Your task to perform on an android device: Empty the shopping cart on costco.com. Search for "razer kraken" on costco.com, select the first entry, add it to the cart, then select checkout. Image 0: 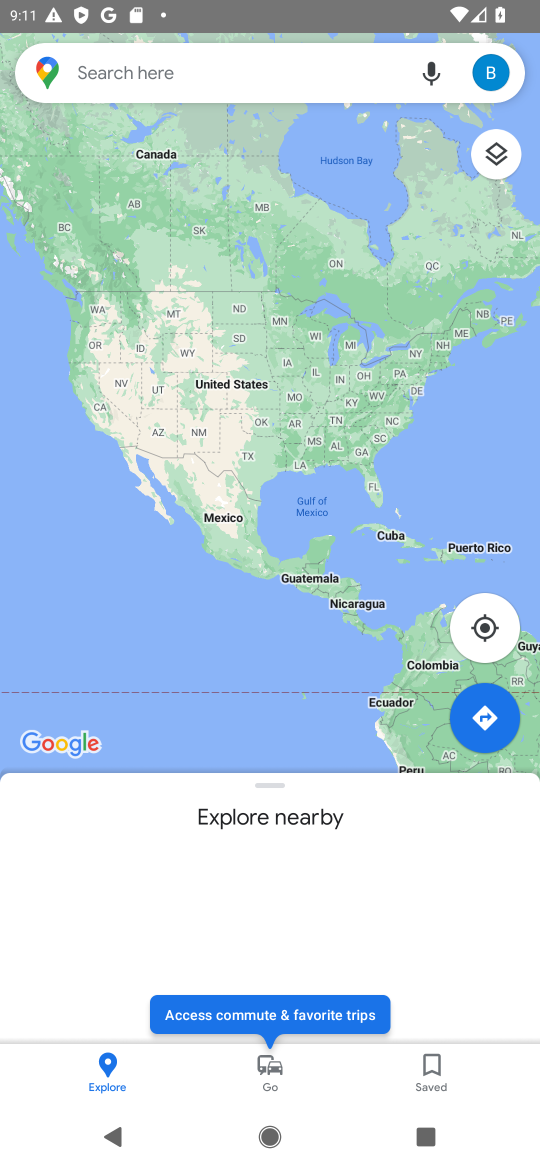
Step 0: press home button
Your task to perform on an android device: Empty the shopping cart on costco.com. Search for "razer kraken" on costco.com, select the first entry, add it to the cart, then select checkout. Image 1: 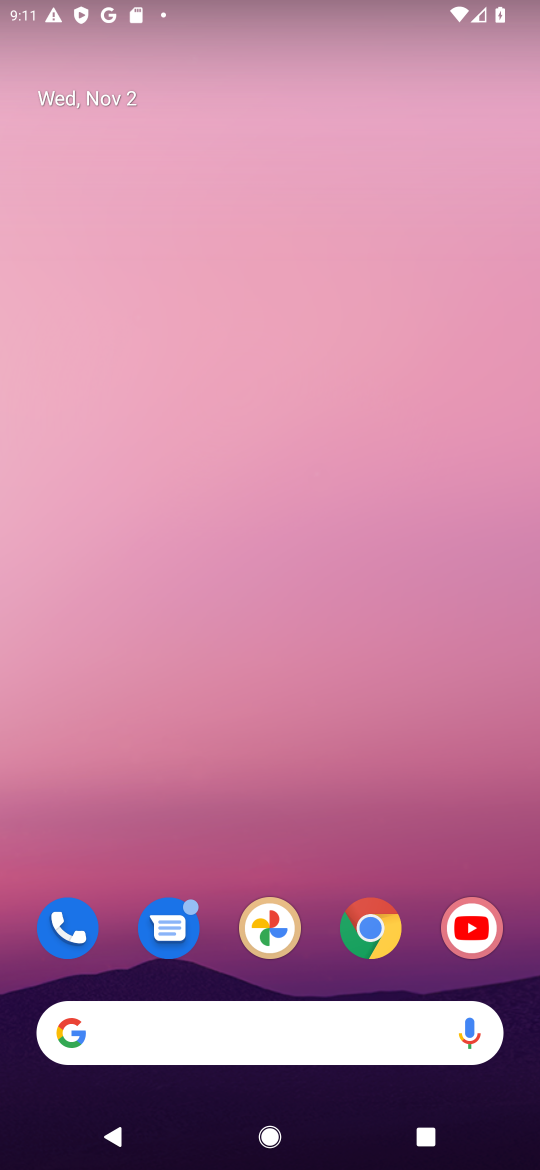
Step 1: click (356, 929)
Your task to perform on an android device: Empty the shopping cart on costco.com. Search for "razer kraken" on costco.com, select the first entry, add it to the cart, then select checkout. Image 2: 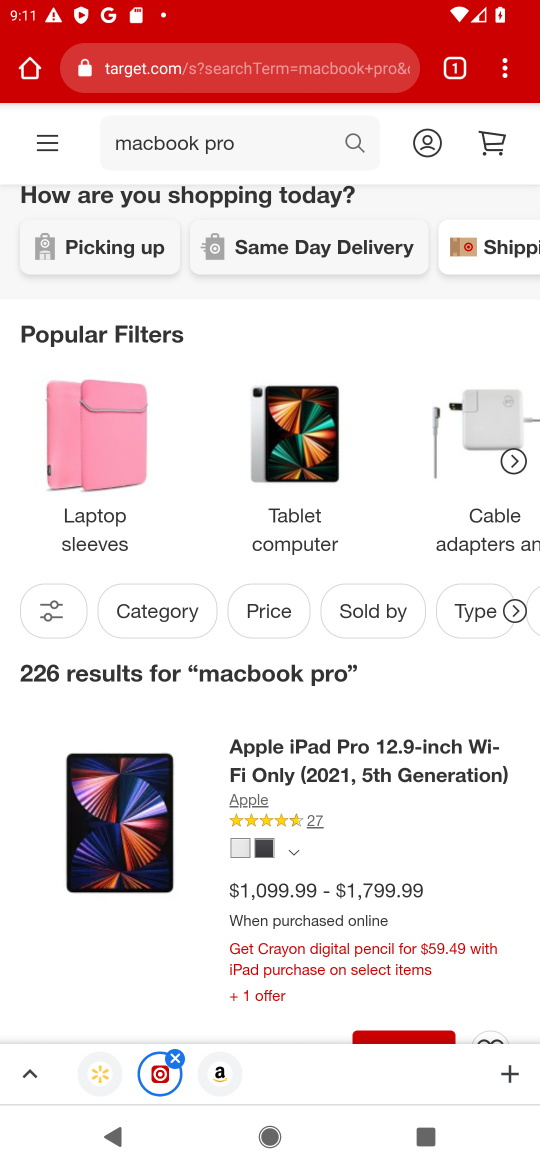
Step 2: click (242, 96)
Your task to perform on an android device: Empty the shopping cart on costco.com. Search for "razer kraken" on costco.com, select the first entry, add it to the cart, then select checkout. Image 3: 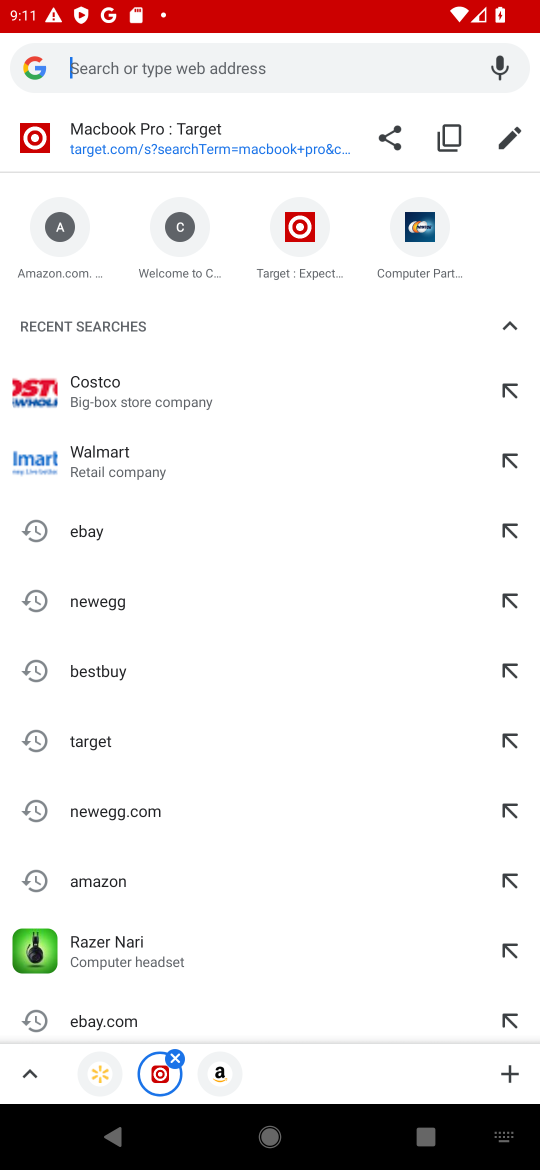
Step 3: type "costco.com"
Your task to perform on an android device: Empty the shopping cart on costco.com. Search for "razer kraken" on costco.com, select the first entry, add it to the cart, then select checkout. Image 4: 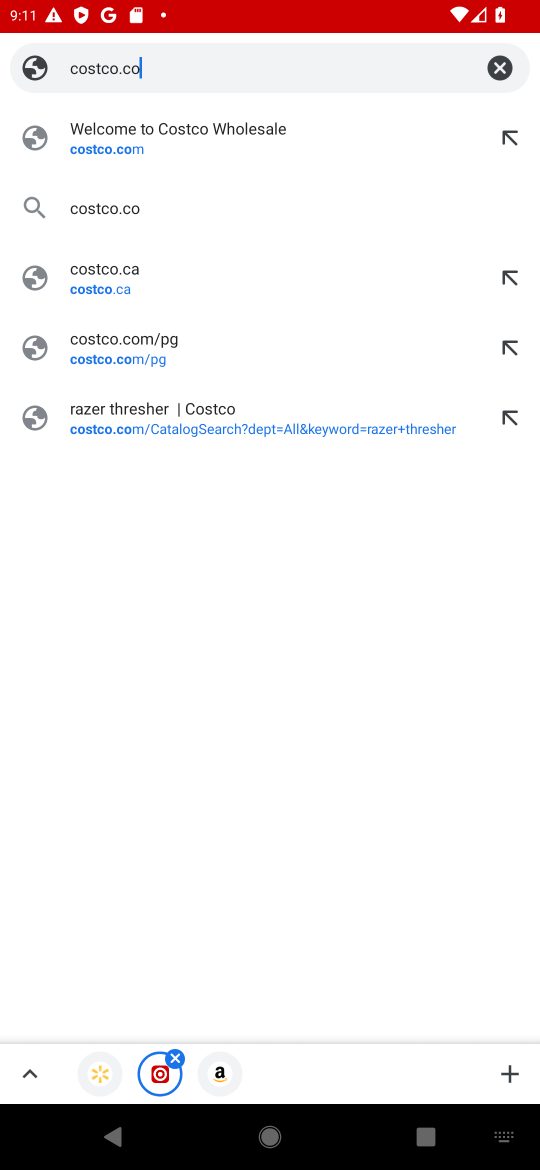
Step 4: type ""
Your task to perform on an android device: Empty the shopping cart on costco.com. Search for "razer kraken" on costco.com, select the first entry, add it to the cart, then select checkout. Image 5: 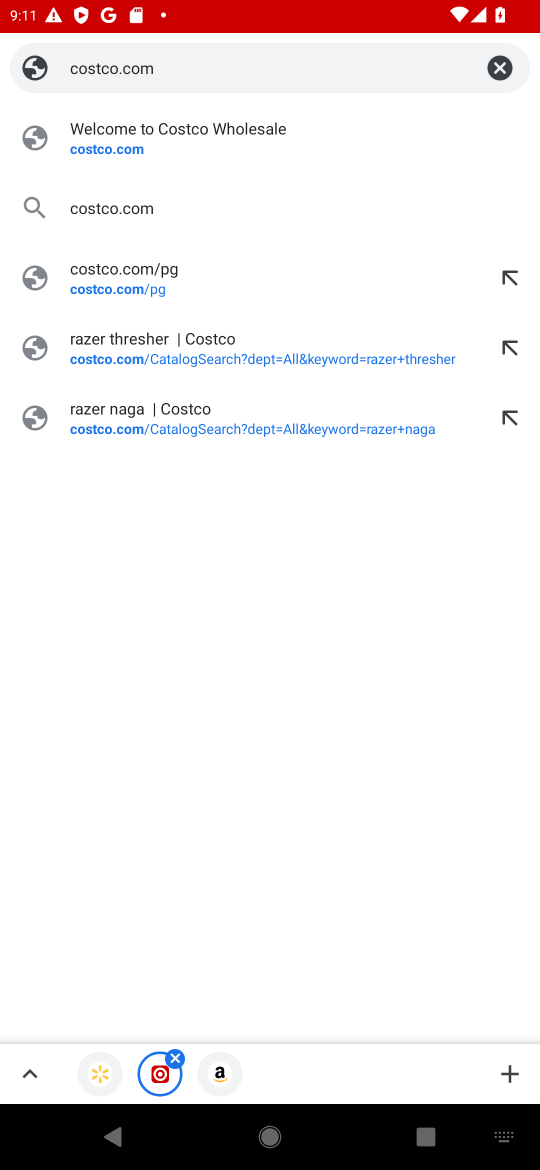
Step 5: click (159, 117)
Your task to perform on an android device: Empty the shopping cart on costco.com. Search for "razer kraken" on costco.com, select the first entry, add it to the cart, then select checkout. Image 6: 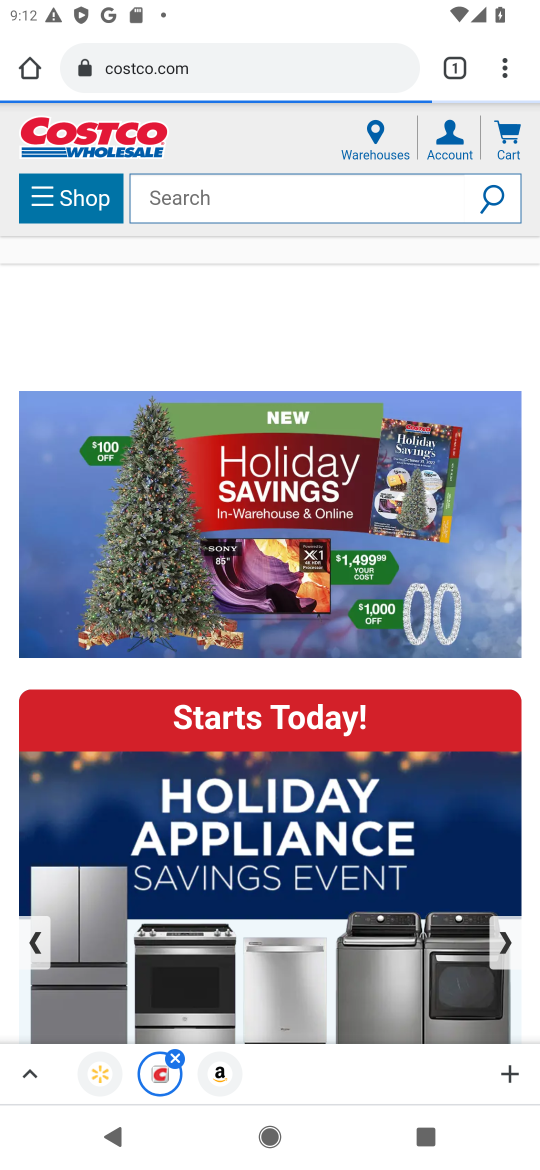
Step 6: click (505, 150)
Your task to perform on an android device: Empty the shopping cart on costco.com. Search for "razer kraken" on costco.com, select the first entry, add it to the cart, then select checkout. Image 7: 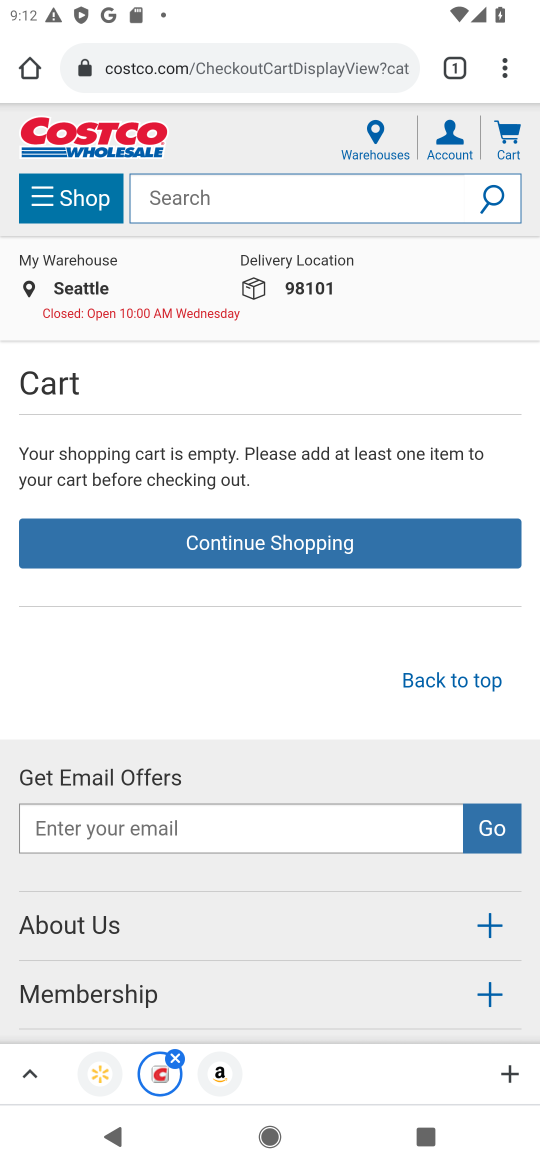
Step 7: click (242, 201)
Your task to perform on an android device: Empty the shopping cart on costco.com. Search for "razer kraken" on costco.com, select the first entry, add it to the cart, then select checkout. Image 8: 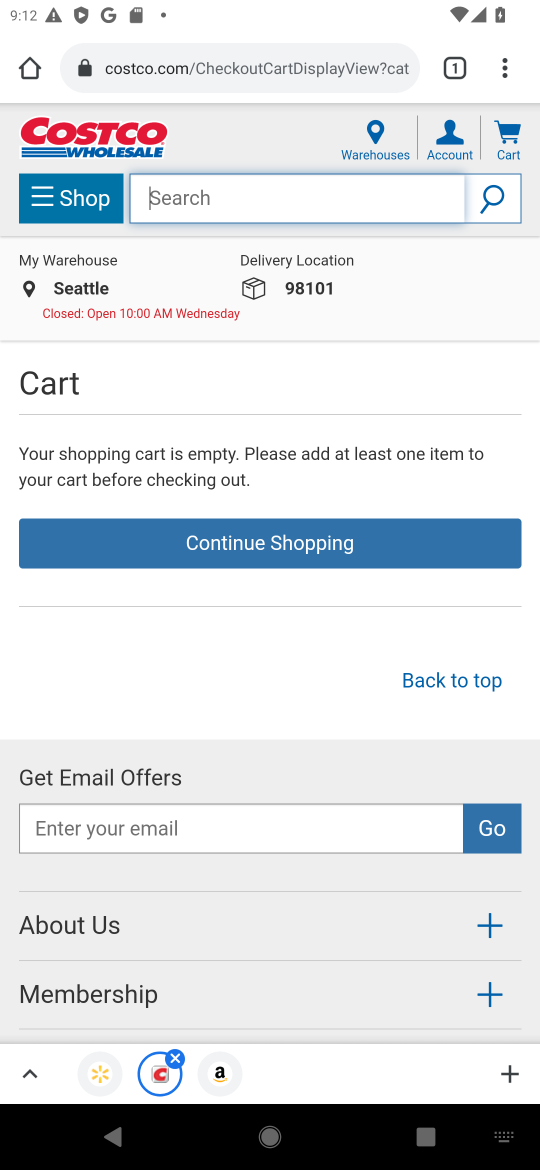
Step 8: type "razer kraken"
Your task to perform on an android device: Empty the shopping cart on costco.com. Search for "razer kraken" on costco.com, select the first entry, add it to the cart, then select checkout. Image 9: 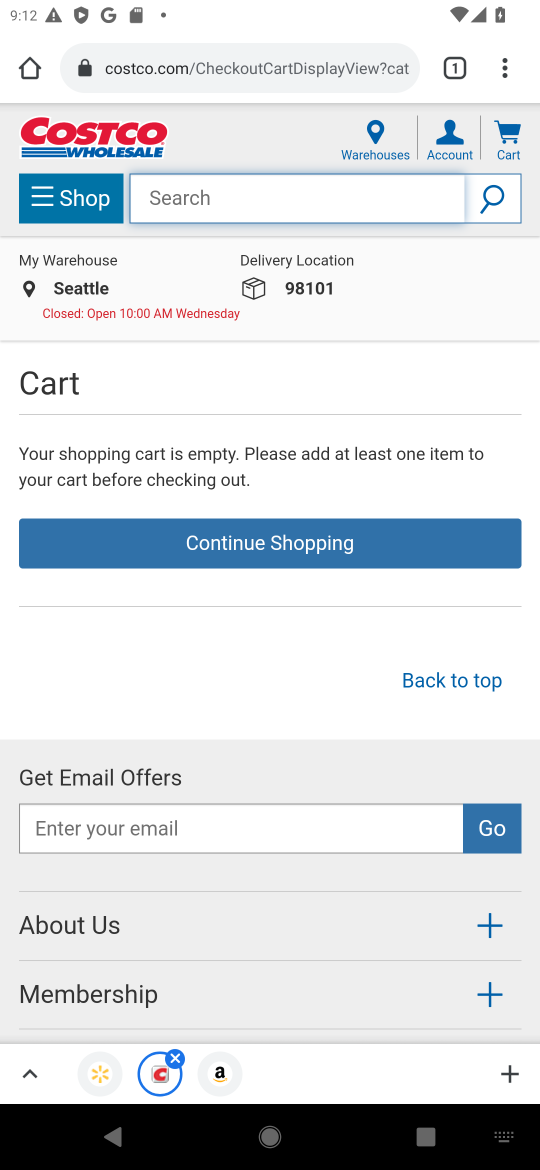
Step 9: type ""
Your task to perform on an android device: Empty the shopping cart on costco.com. Search for "razer kraken" on costco.com, select the first entry, add it to the cart, then select checkout. Image 10: 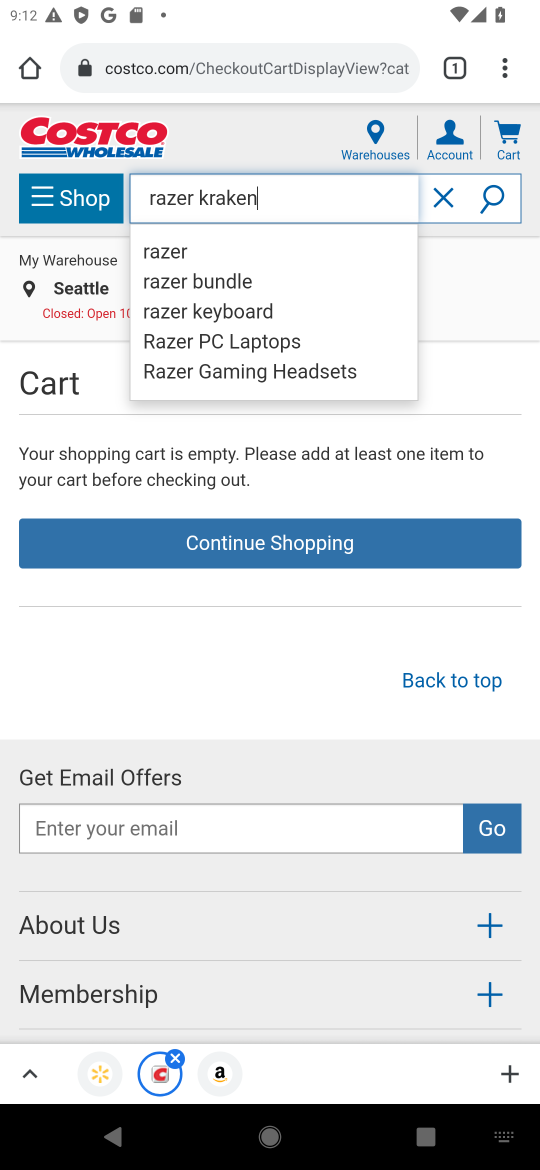
Step 10: click (484, 192)
Your task to perform on an android device: Empty the shopping cart on costco.com. Search for "razer kraken" on costco.com, select the first entry, add it to the cart, then select checkout. Image 11: 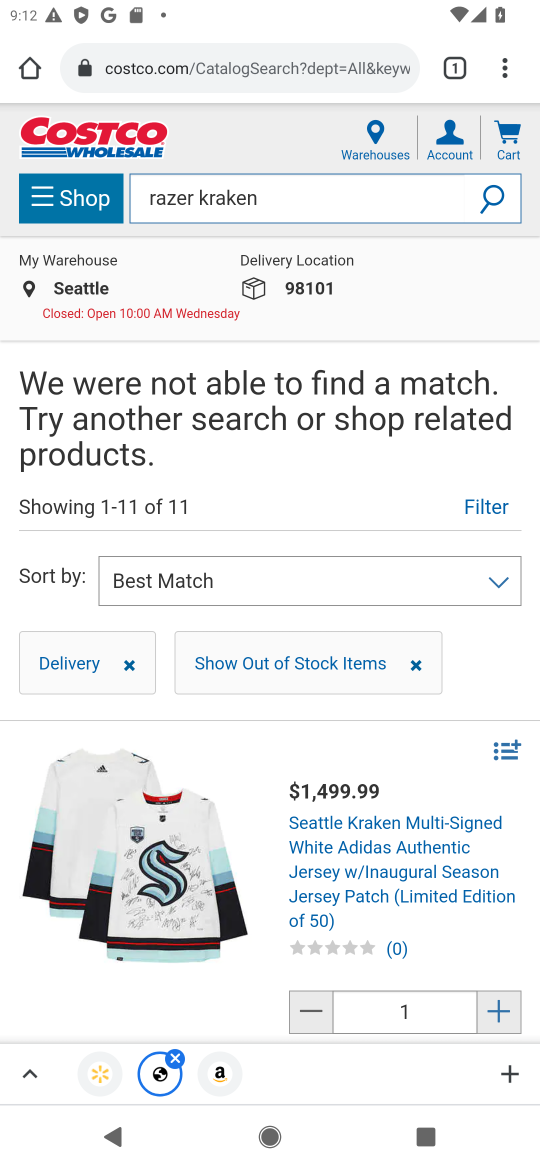
Step 11: task complete